Your task to perform on an android device: add a contact in the contacts app Image 0: 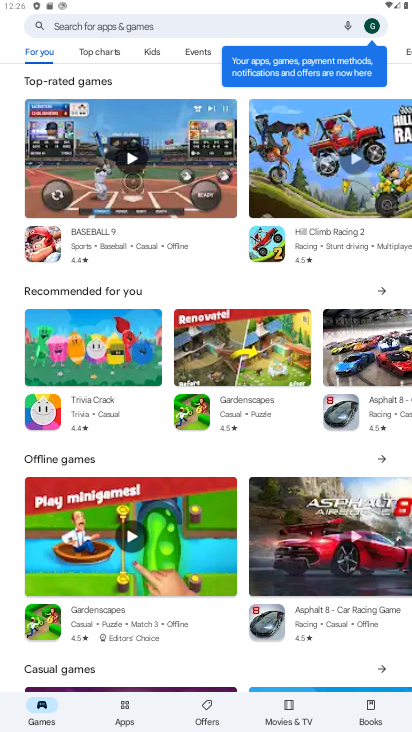
Step 0: press home button
Your task to perform on an android device: add a contact in the contacts app Image 1: 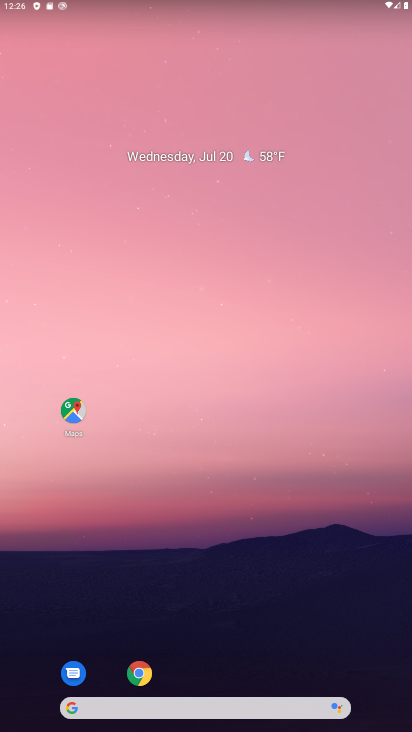
Step 1: drag from (243, 666) to (259, 134)
Your task to perform on an android device: add a contact in the contacts app Image 2: 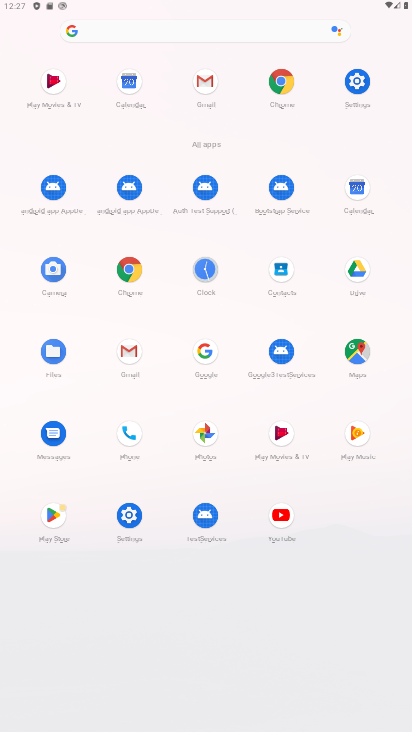
Step 2: click (282, 276)
Your task to perform on an android device: add a contact in the contacts app Image 3: 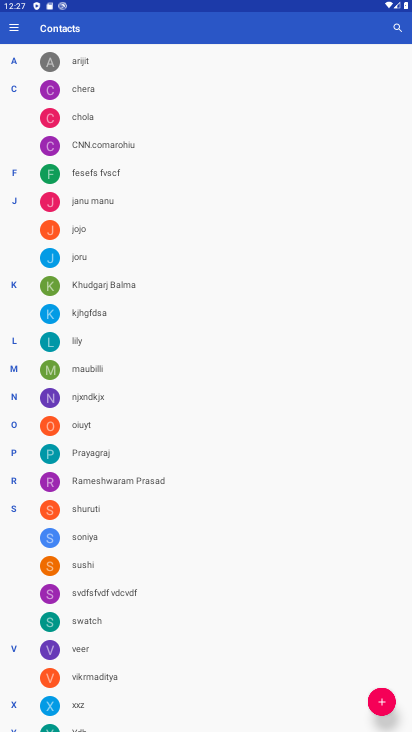
Step 3: click (388, 693)
Your task to perform on an android device: add a contact in the contacts app Image 4: 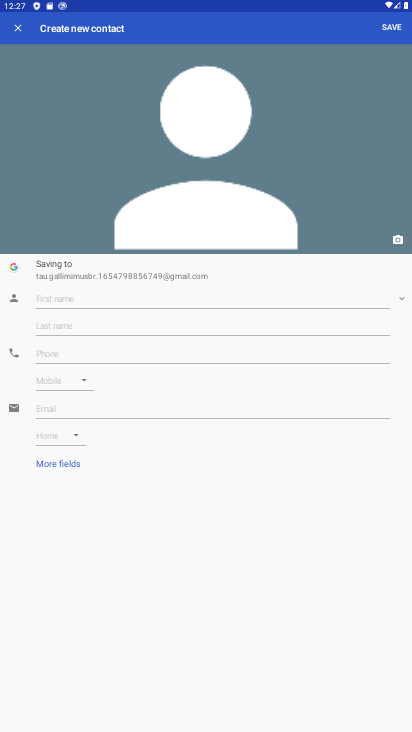
Step 4: click (146, 295)
Your task to perform on an android device: add a contact in the contacts app Image 5: 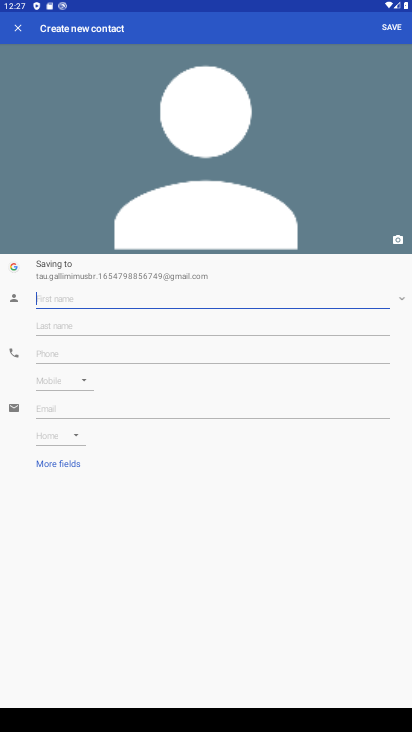
Step 5: type "Arpit"
Your task to perform on an android device: add a contact in the contacts app Image 6: 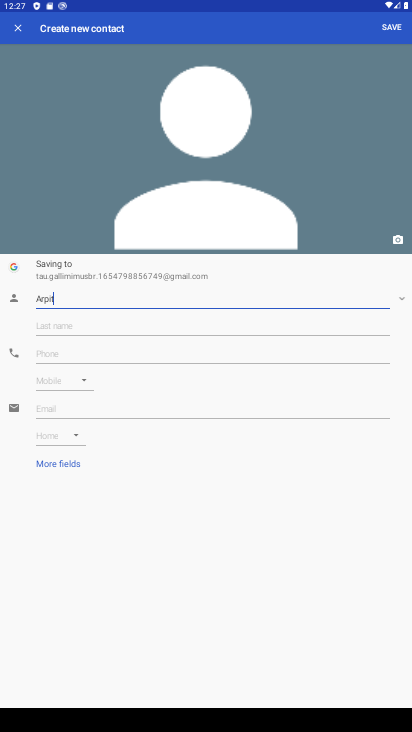
Step 6: click (396, 21)
Your task to perform on an android device: add a contact in the contacts app Image 7: 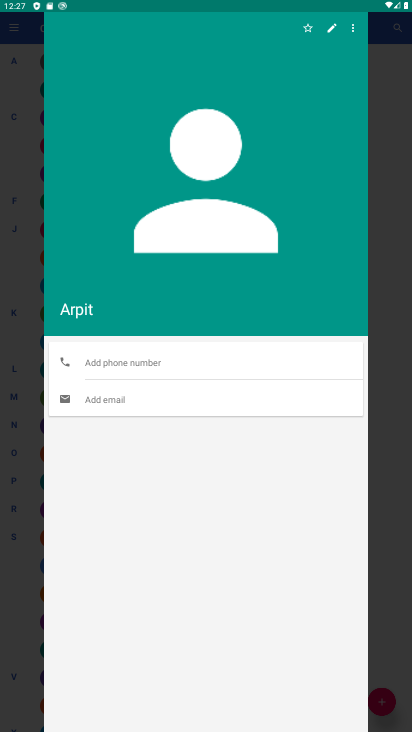
Step 7: task complete